Your task to perform on an android device: turn off location Image 0: 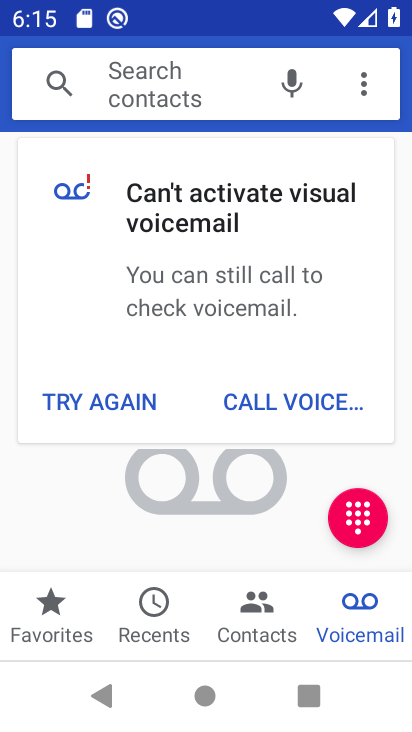
Step 0: press home button
Your task to perform on an android device: turn off location Image 1: 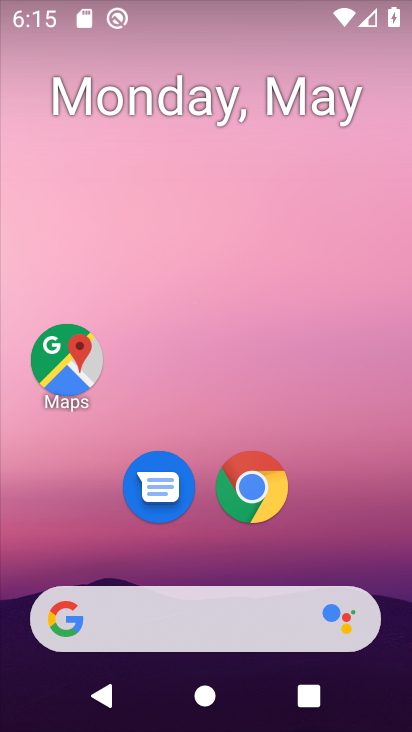
Step 1: drag from (200, 567) to (224, 139)
Your task to perform on an android device: turn off location Image 2: 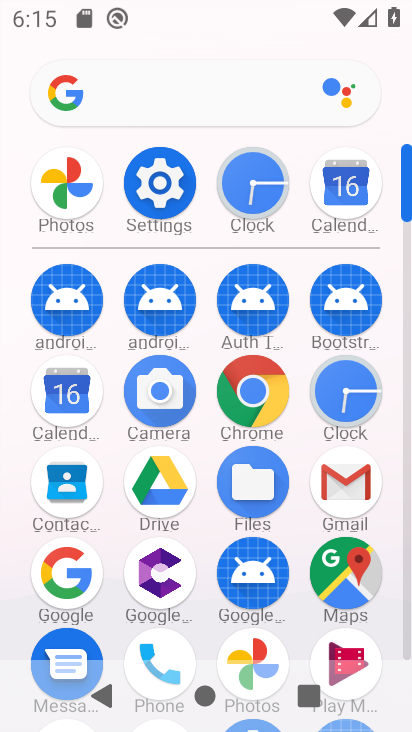
Step 2: click (159, 180)
Your task to perform on an android device: turn off location Image 3: 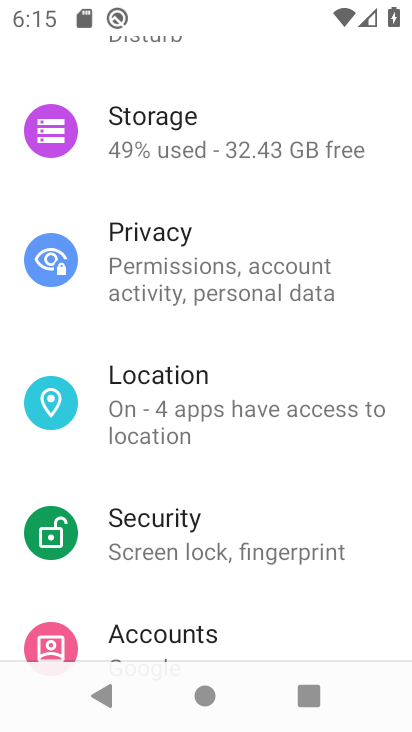
Step 3: click (205, 395)
Your task to perform on an android device: turn off location Image 4: 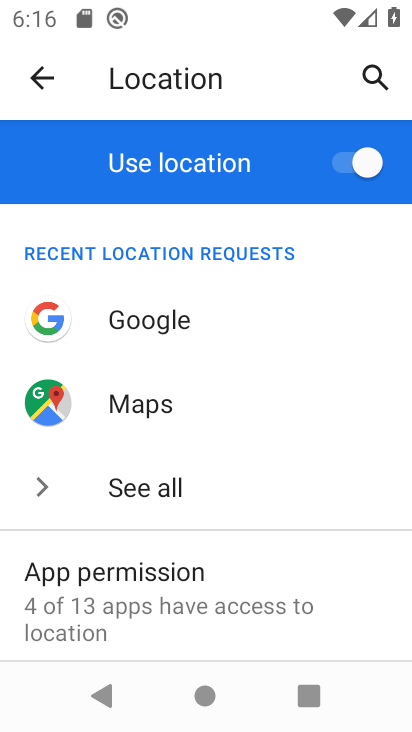
Step 4: click (349, 161)
Your task to perform on an android device: turn off location Image 5: 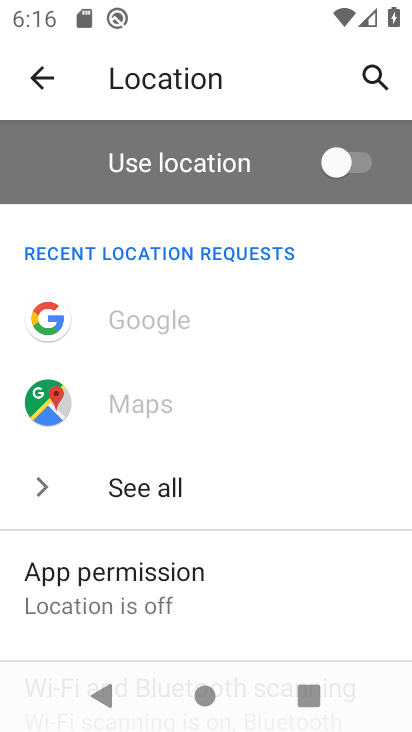
Step 5: task complete